Your task to perform on an android device: turn on airplane mode Image 0: 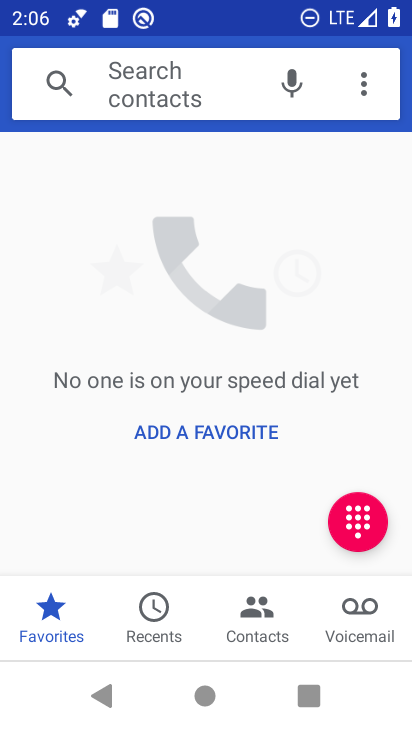
Step 0: press home button
Your task to perform on an android device: turn on airplane mode Image 1: 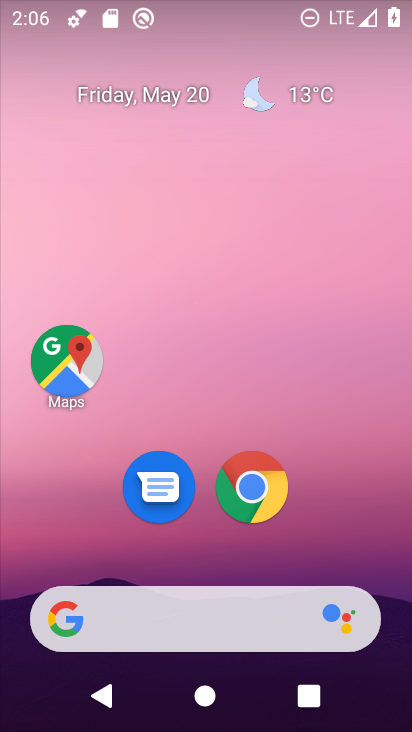
Step 1: drag from (213, 555) to (228, 166)
Your task to perform on an android device: turn on airplane mode Image 2: 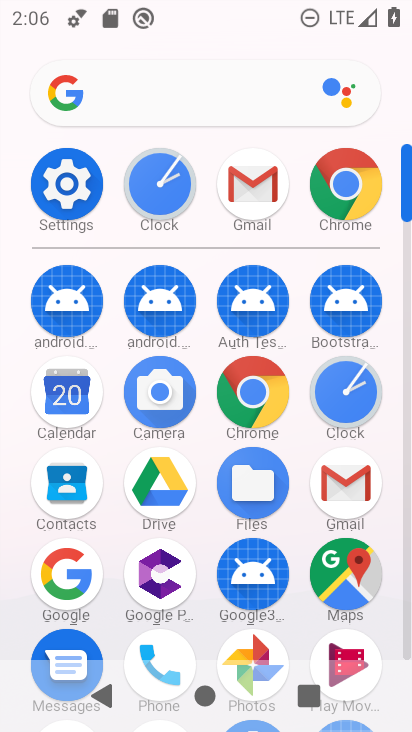
Step 2: drag from (186, 0) to (259, 339)
Your task to perform on an android device: turn on airplane mode Image 3: 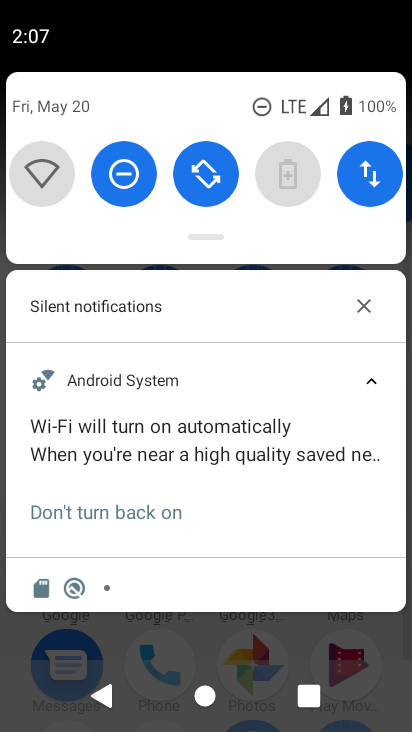
Step 3: drag from (254, 239) to (290, 552)
Your task to perform on an android device: turn on airplane mode Image 4: 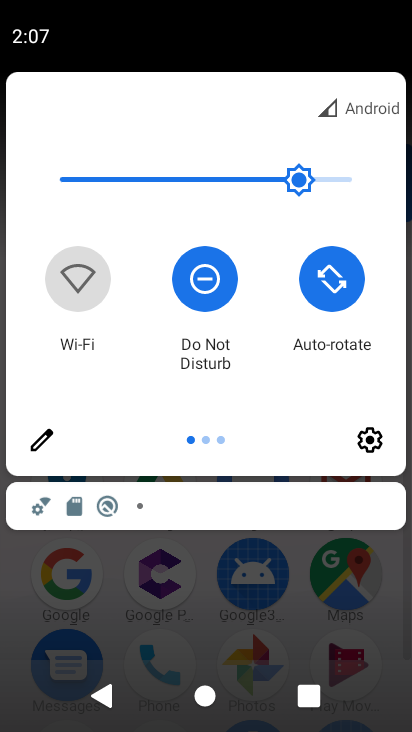
Step 4: drag from (326, 322) to (0, 317)
Your task to perform on an android device: turn on airplane mode Image 5: 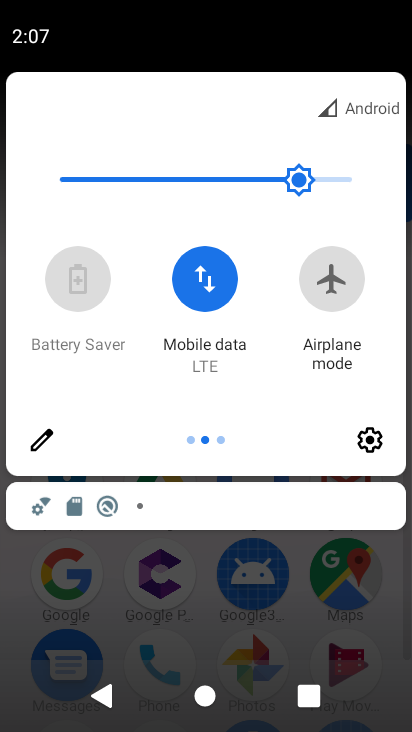
Step 5: click (331, 286)
Your task to perform on an android device: turn on airplane mode Image 6: 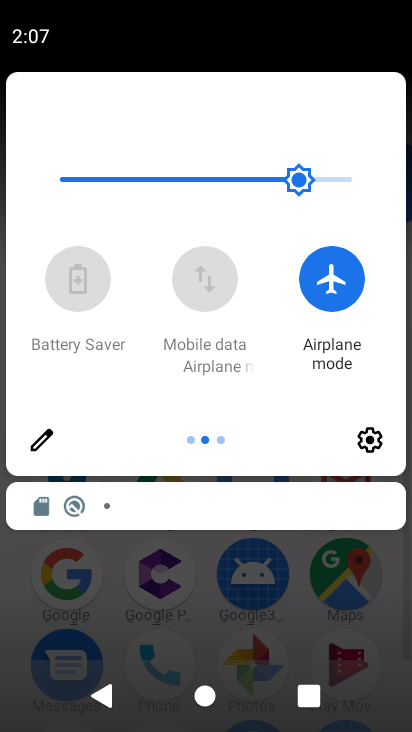
Step 6: task complete